Your task to perform on an android device: Open settings on Google Maps Image 0: 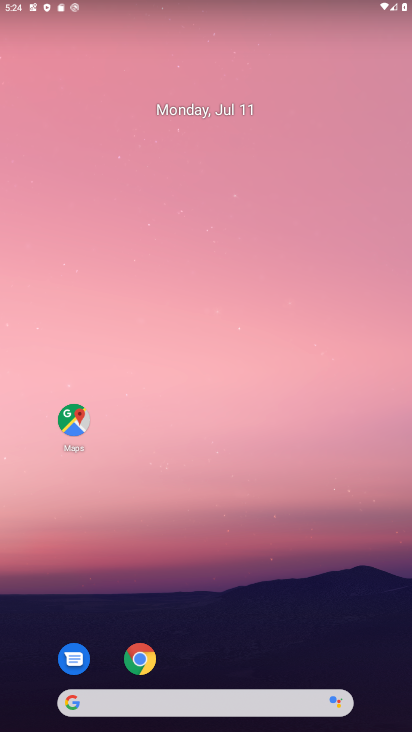
Step 0: click (75, 420)
Your task to perform on an android device: Open settings on Google Maps Image 1: 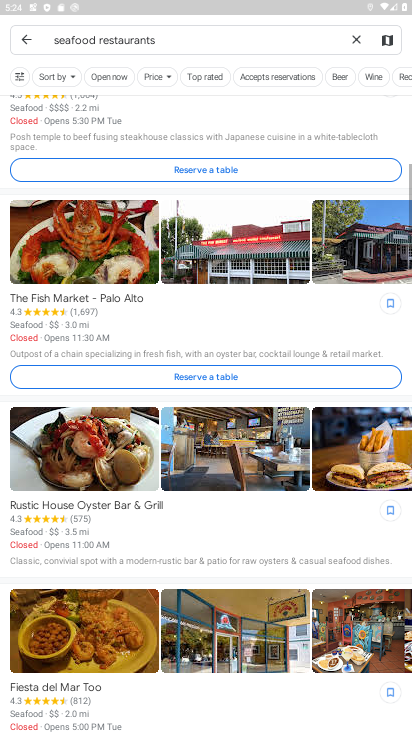
Step 1: click (355, 34)
Your task to perform on an android device: Open settings on Google Maps Image 2: 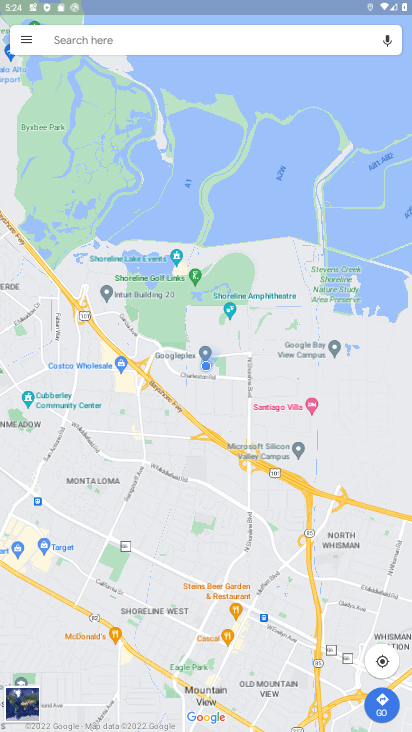
Step 2: click (28, 42)
Your task to perform on an android device: Open settings on Google Maps Image 3: 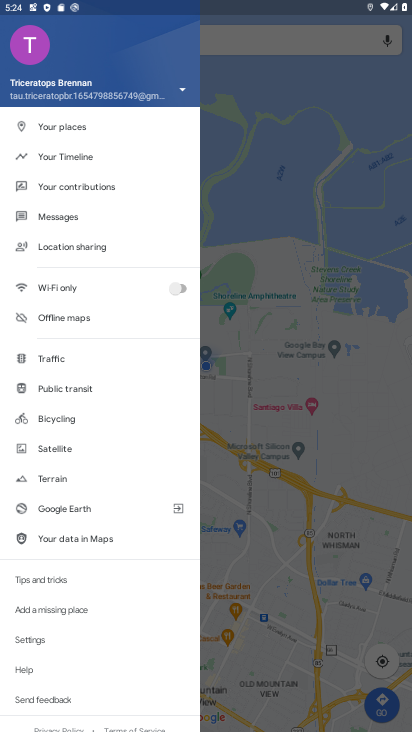
Step 3: click (25, 639)
Your task to perform on an android device: Open settings on Google Maps Image 4: 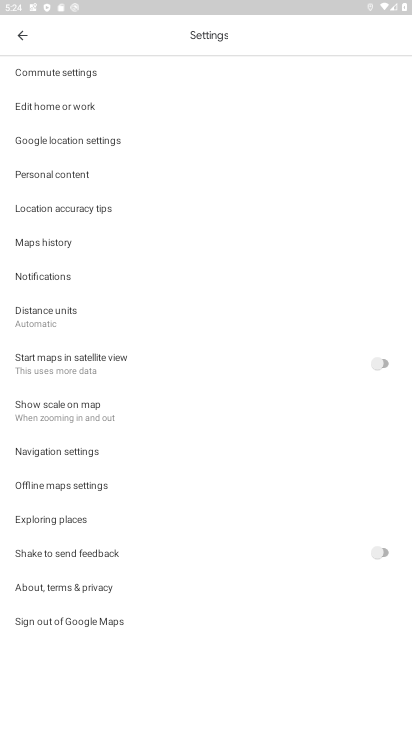
Step 4: task complete